Your task to perform on an android device: Open wifi settings Image 0: 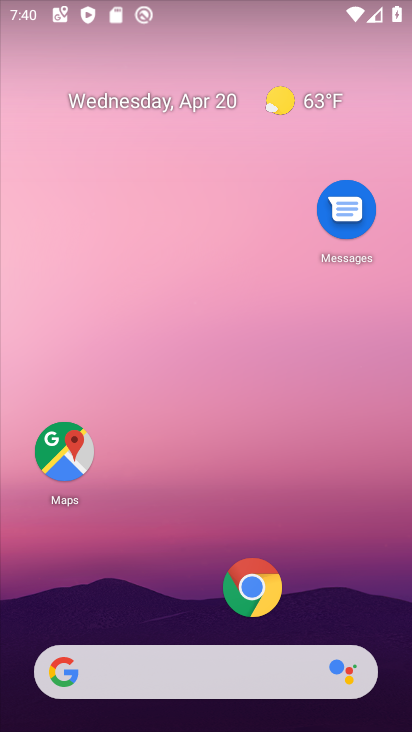
Step 0: drag from (173, 674) to (306, 51)
Your task to perform on an android device: Open wifi settings Image 1: 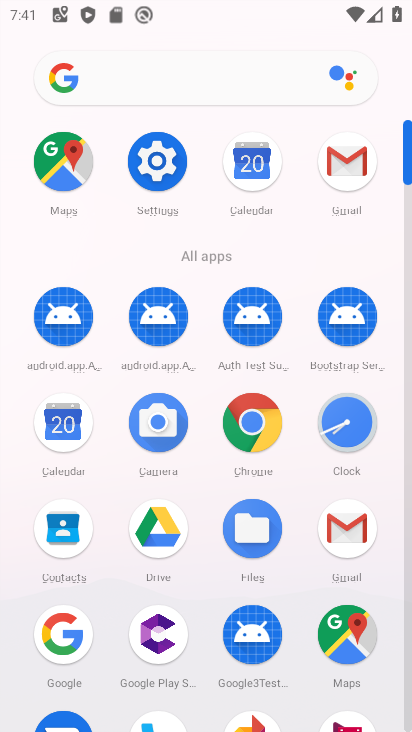
Step 1: click (154, 165)
Your task to perform on an android device: Open wifi settings Image 2: 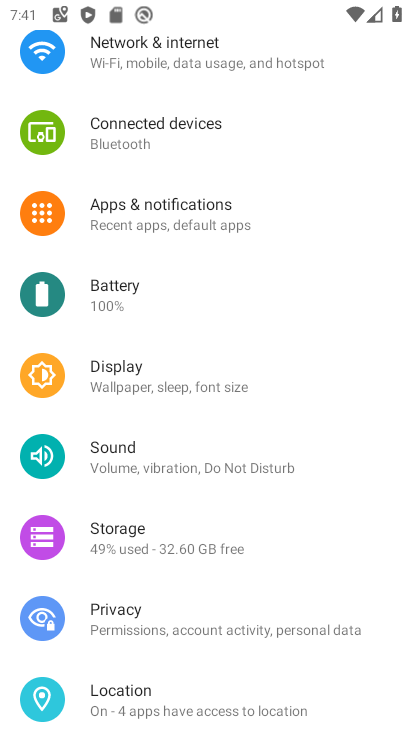
Step 2: drag from (215, 93) to (192, 581)
Your task to perform on an android device: Open wifi settings Image 3: 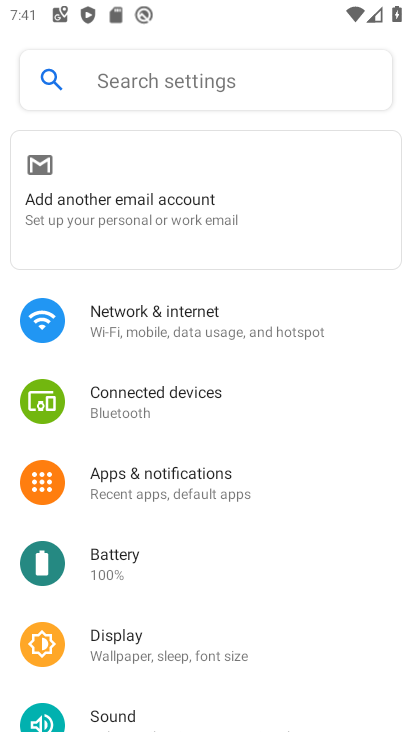
Step 3: click (167, 322)
Your task to perform on an android device: Open wifi settings Image 4: 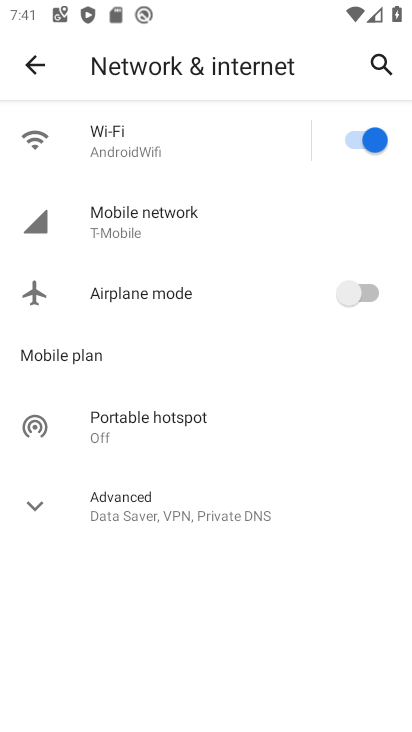
Step 4: click (100, 145)
Your task to perform on an android device: Open wifi settings Image 5: 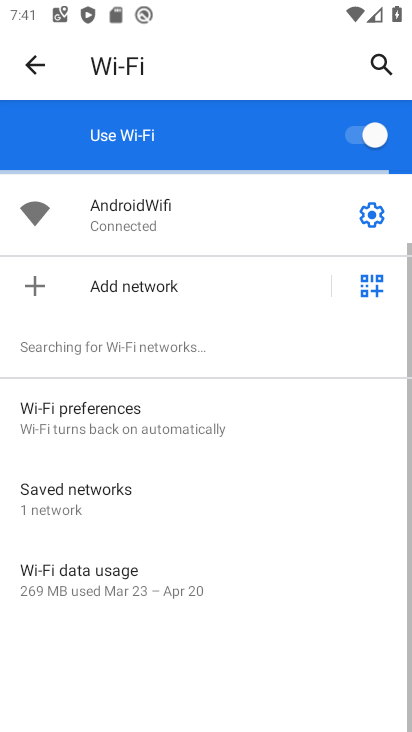
Step 5: task complete